Your task to perform on an android device: Open calendar and show me the fourth week of next month Image 0: 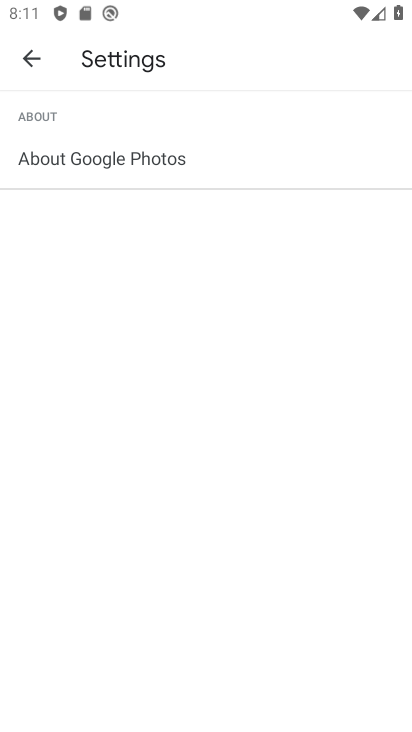
Step 0: press home button
Your task to perform on an android device: Open calendar and show me the fourth week of next month Image 1: 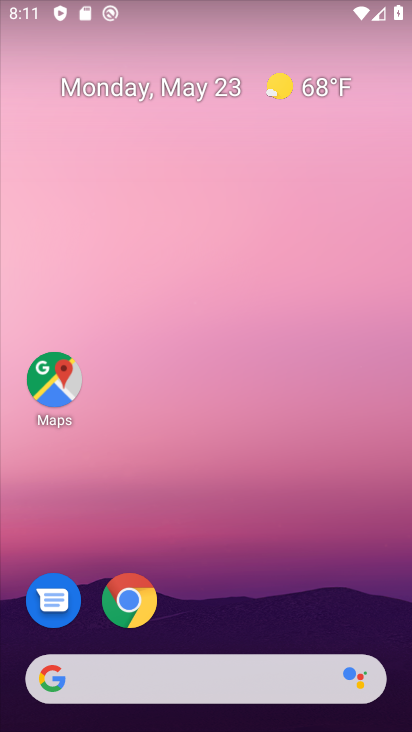
Step 1: drag from (13, 690) to (225, 313)
Your task to perform on an android device: Open calendar and show me the fourth week of next month Image 2: 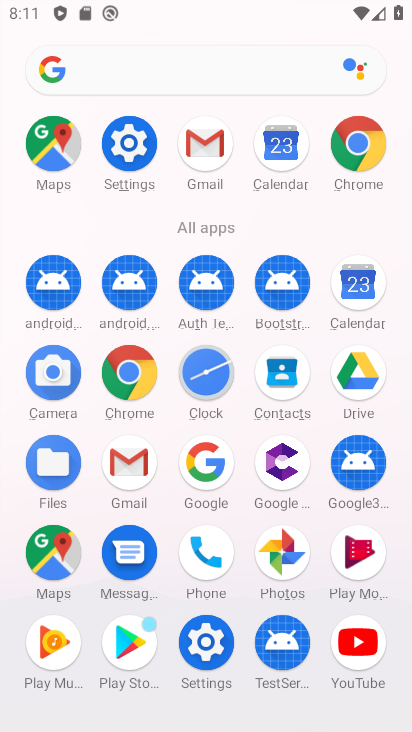
Step 2: click (362, 289)
Your task to perform on an android device: Open calendar and show me the fourth week of next month Image 3: 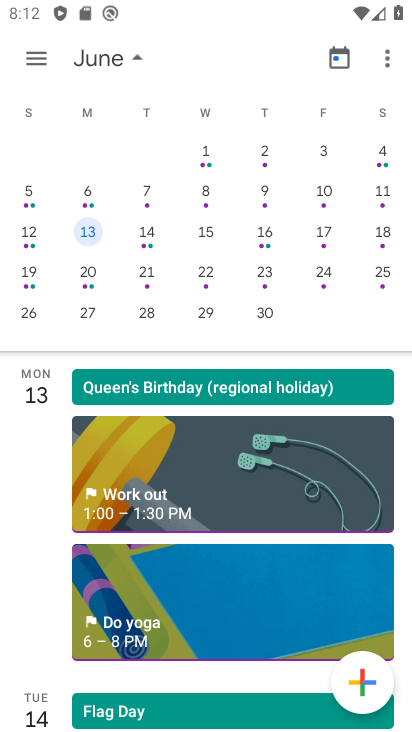
Step 3: click (194, 262)
Your task to perform on an android device: Open calendar and show me the fourth week of next month Image 4: 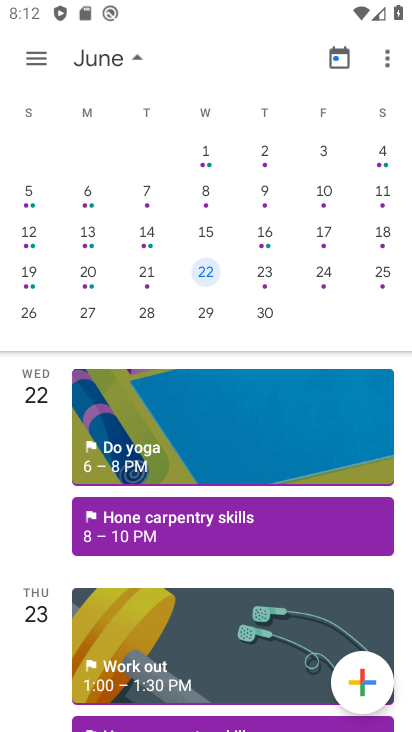
Step 4: task complete